Your task to perform on an android device: find photos in the google photos app Image 0: 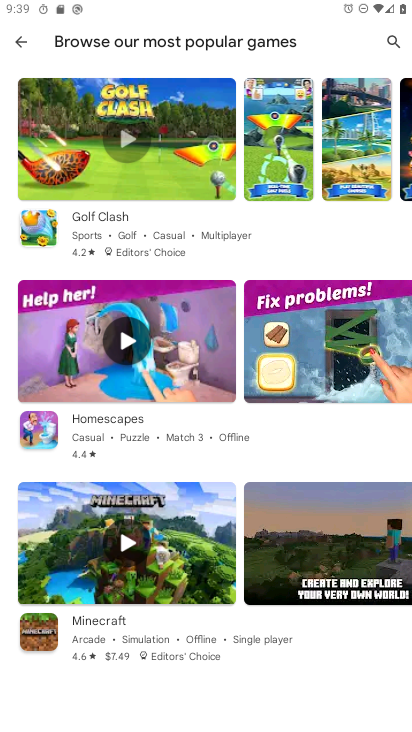
Step 0: press home button
Your task to perform on an android device: find photos in the google photos app Image 1: 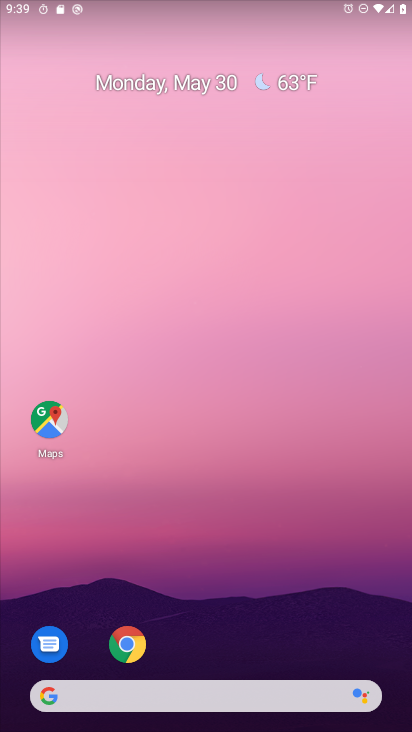
Step 1: drag from (236, 641) to (233, 52)
Your task to perform on an android device: find photos in the google photos app Image 2: 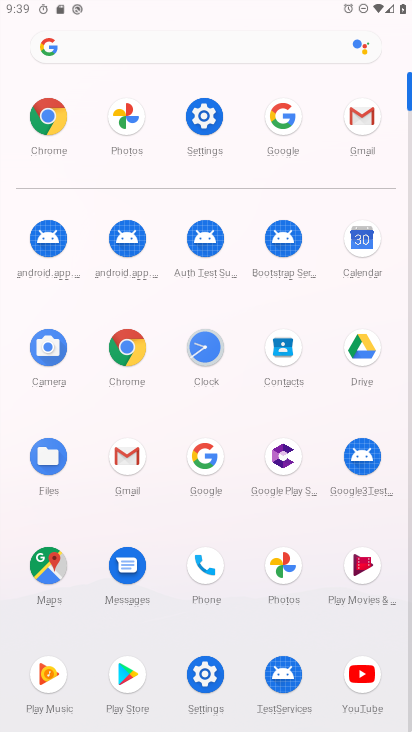
Step 2: click (128, 114)
Your task to perform on an android device: find photos in the google photos app Image 3: 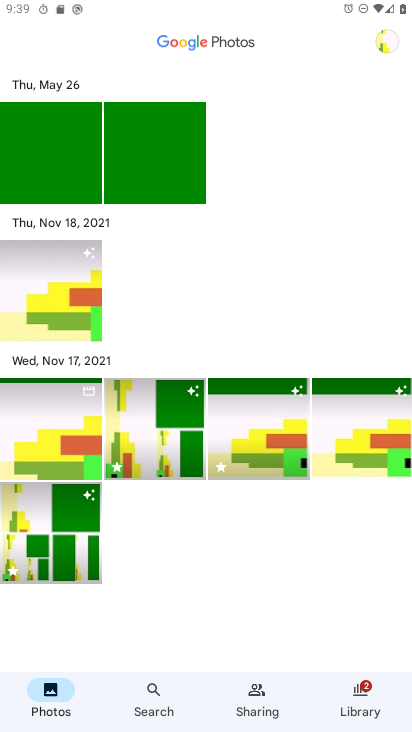
Step 3: task complete